Your task to perform on an android device: Go to Maps Image 0: 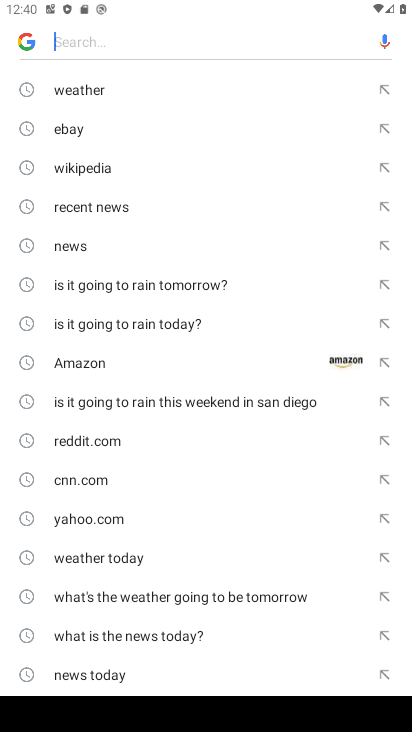
Step 0: press home button
Your task to perform on an android device: Go to Maps Image 1: 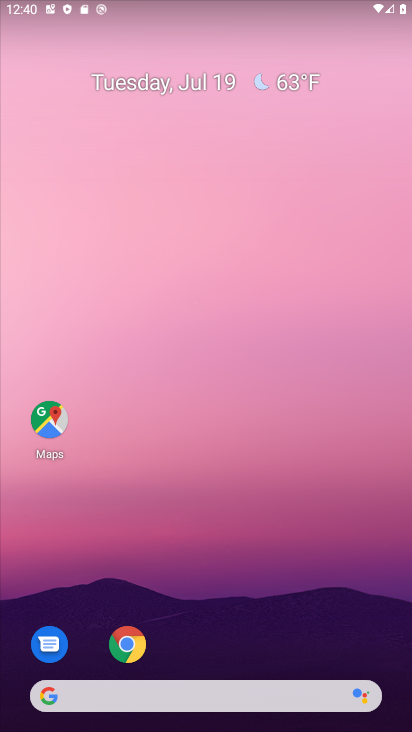
Step 1: drag from (233, 724) to (228, 125)
Your task to perform on an android device: Go to Maps Image 2: 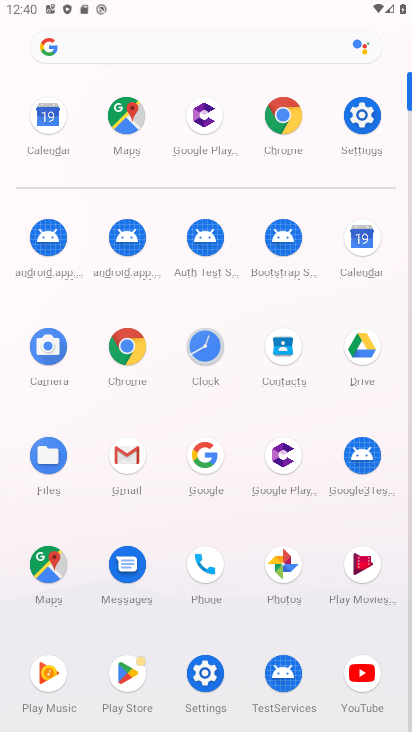
Step 2: click (49, 570)
Your task to perform on an android device: Go to Maps Image 3: 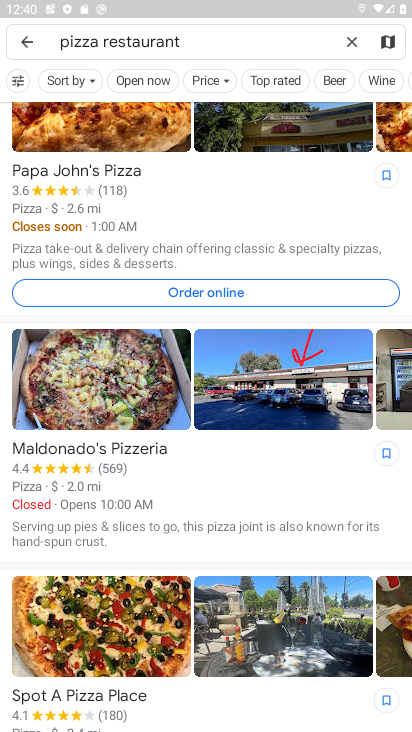
Step 3: task complete